Your task to perform on an android device: What's on the menu at Domino's? Image 0: 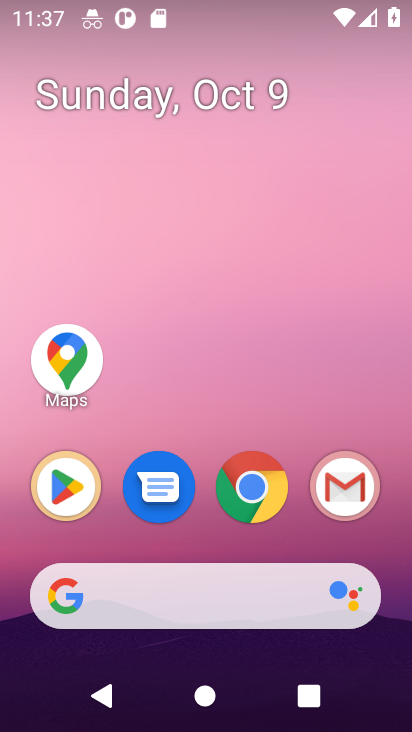
Step 0: click (264, 482)
Your task to perform on an android device: What's on the menu at Domino's? Image 1: 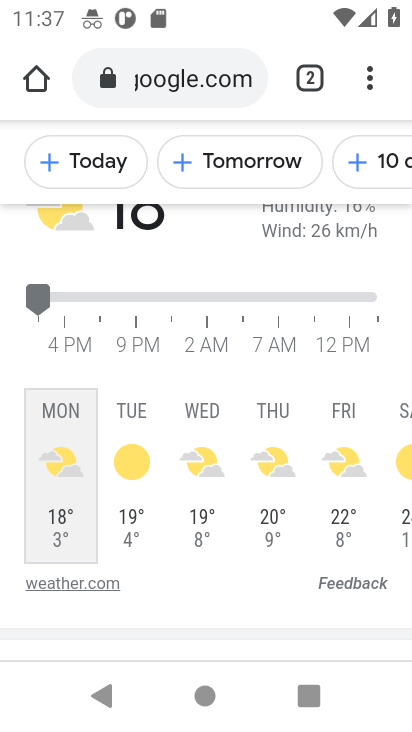
Step 1: click (216, 84)
Your task to perform on an android device: What's on the menu at Domino's? Image 2: 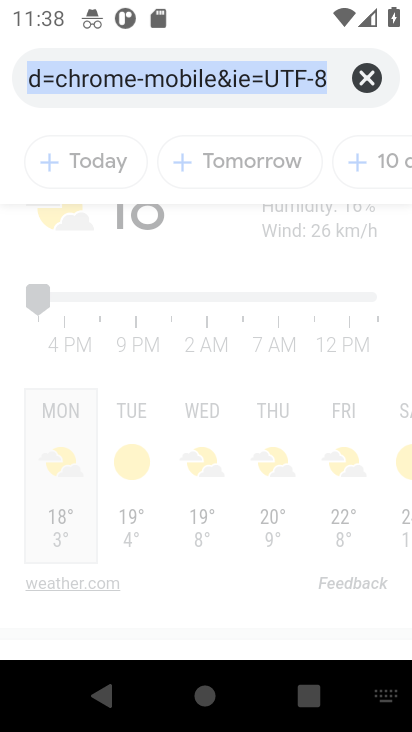
Step 2: type "menu at domino's"
Your task to perform on an android device: What's on the menu at Domino's? Image 3: 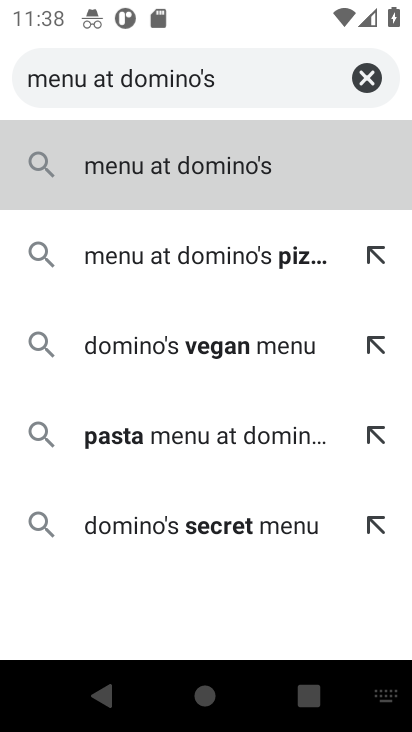
Step 3: press enter
Your task to perform on an android device: What's on the menu at Domino's? Image 4: 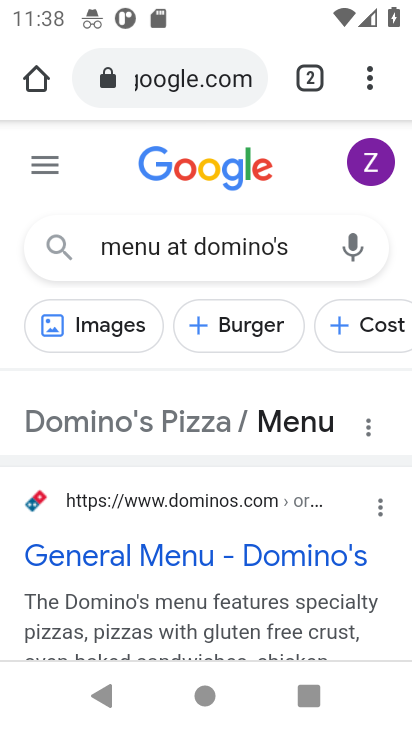
Step 4: click (221, 557)
Your task to perform on an android device: What's on the menu at Domino's? Image 5: 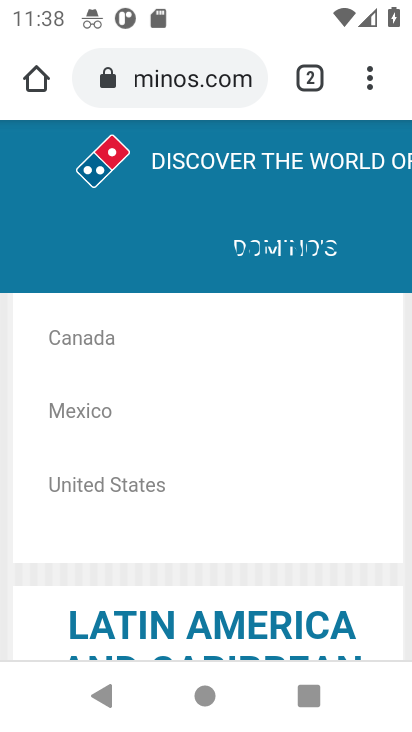
Step 5: drag from (175, 581) to (174, 335)
Your task to perform on an android device: What's on the menu at Domino's? Image 6: 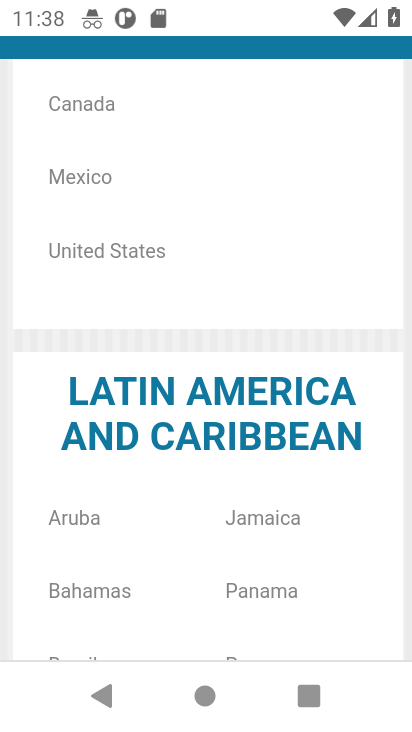
Step 6: drag from (203, 513) to (172, 668)
Your task to perform on an android device: What's on the menu at Domino's? Image 7: 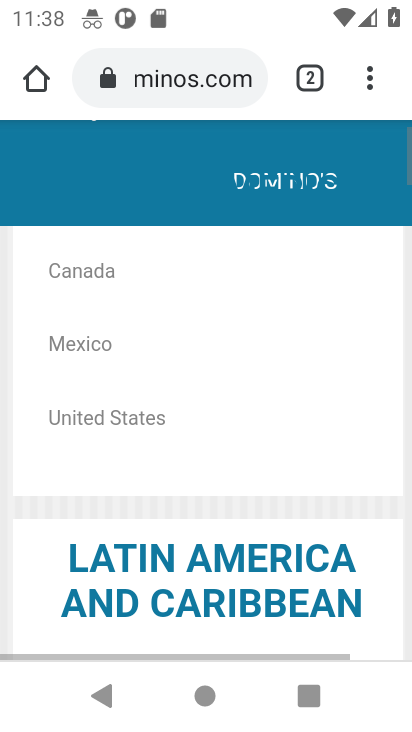
Step 7: drag from (202, 234) to (211, 601)
Your task to perform on an android device: What's on the menu at Domino's? Image 8: 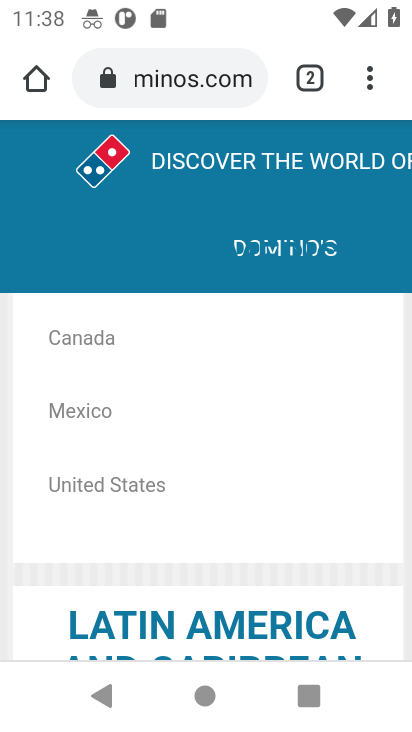
Step 8: drag from (222, 223) to (223, 531)
Your task to perform on an android device: What's on the menu at Domino's? Image 9: 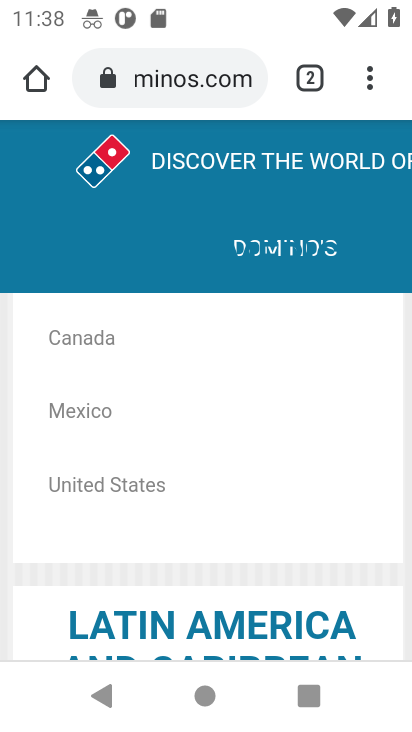
Step 9: press back button
Your task to perform on an android device: What's on the menu at Domino's? Image 10: 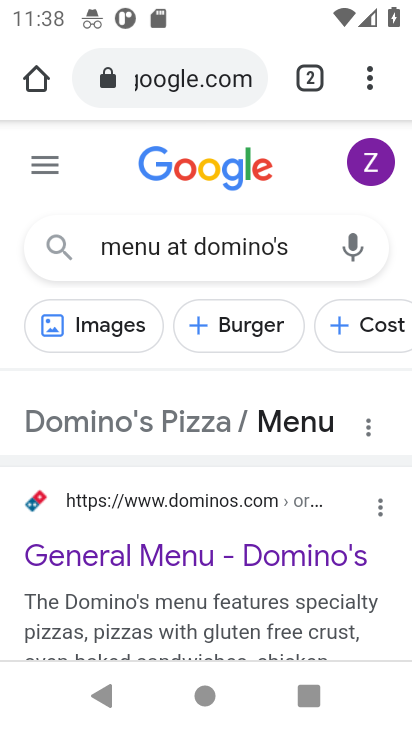
Step 10: drag from (209, 607) to (205, 194)
Your task to perform on an android device: What's on the menu at Domino's? Image 11: 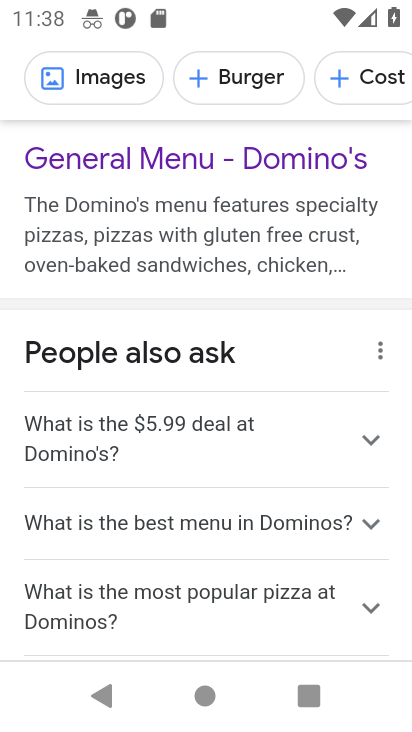
Step 11: drag from (249, 562) to (276, 206)
Your task to perform on an android device: What's on the menu at Domino's? Image 12: 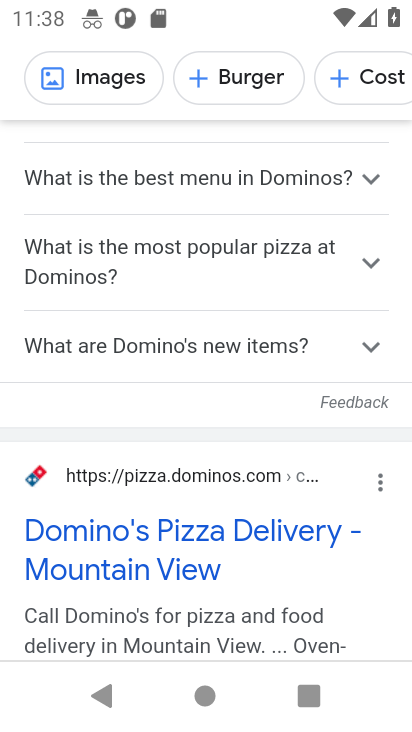
Step 12: drag from (221, 603) to (254, 244)
Your task to perform on an android device: What's on the menu at Domino's? Image 13: 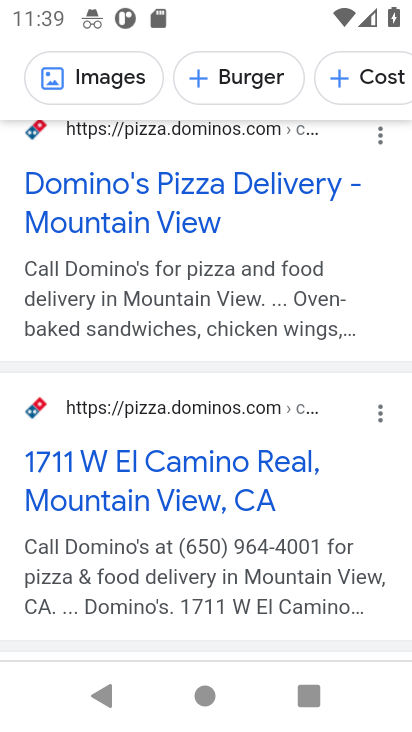
Step 13: drag from (218, 584) to (240, 167)
Your task to perform on an android device: What's on the menu at Domino's? Image 14: 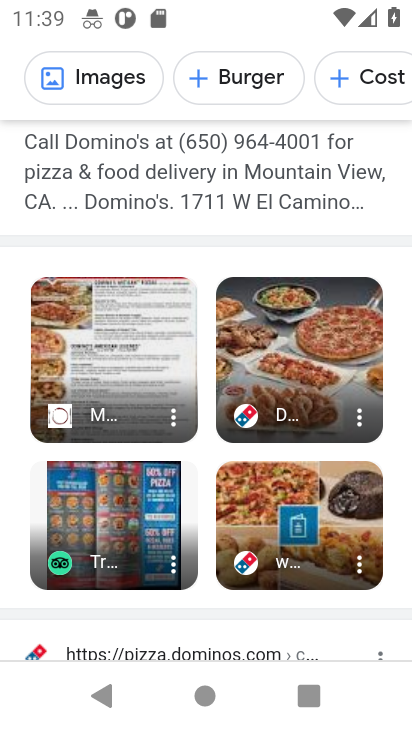
Step 14: drag from (195, 509) to (219, 128)
Your task to perform on an android device: What's on the menu at Domino's? Image 15: 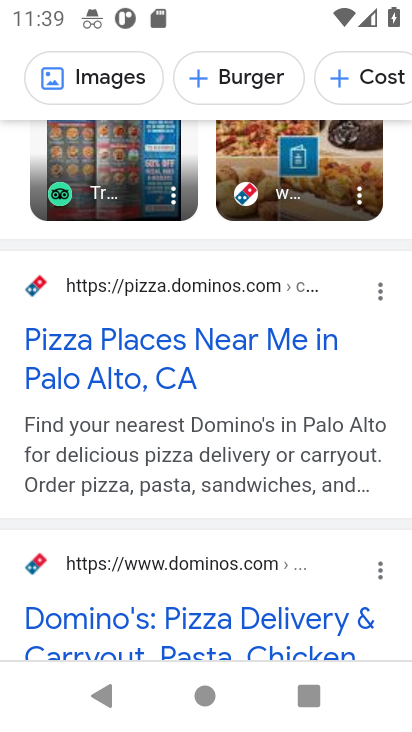
Step 15: drag from (172, 541) to (183, 171)
Your task to perform on an android device: What's on the menu at Domino's? Image 16: 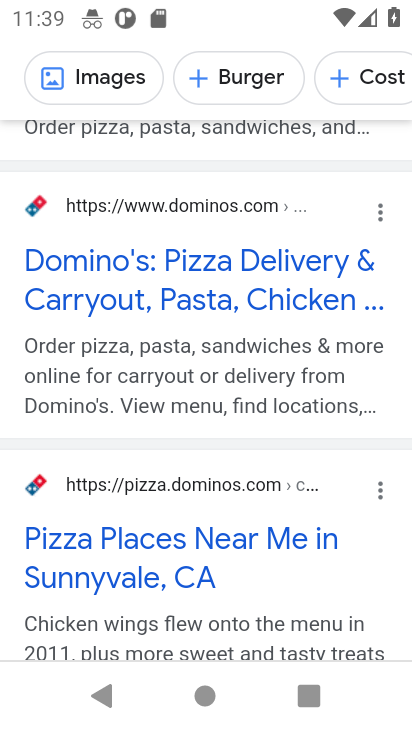
Step 16: drag from (180, 449) to (180, 340)
Your task to perform on an android device: What's on the menu at Domino's? Image 17: 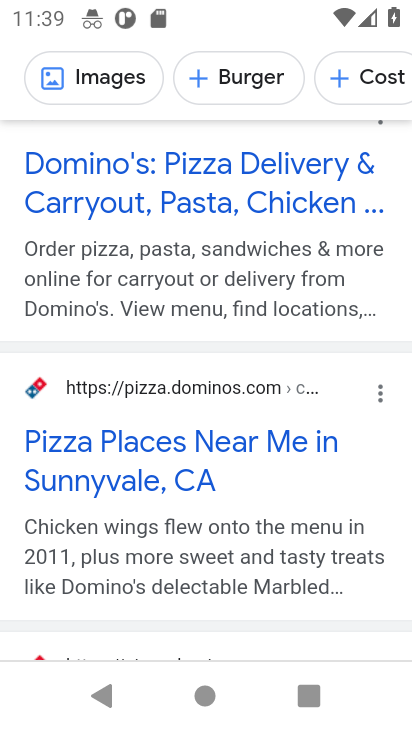
Step 17: drag from (194, 281) to (181, 588)
Your task to perform on an android device: What's on the menu at Domino's? Image 18: 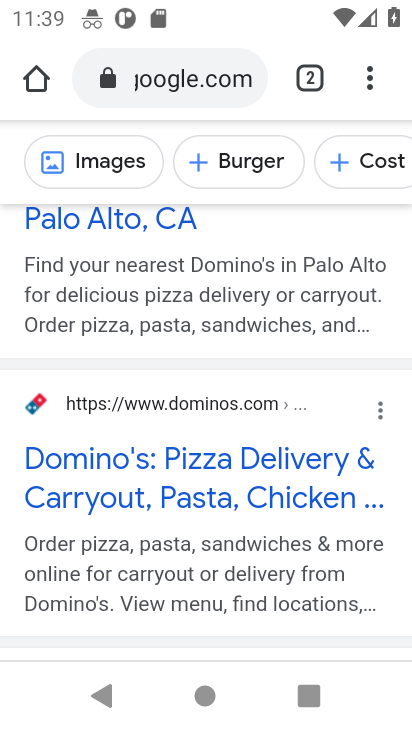
Step 18: drag from (207, 303) to (198, 584)
Your task to perform on an android device: What's on the menu at Domino's? Image 19: 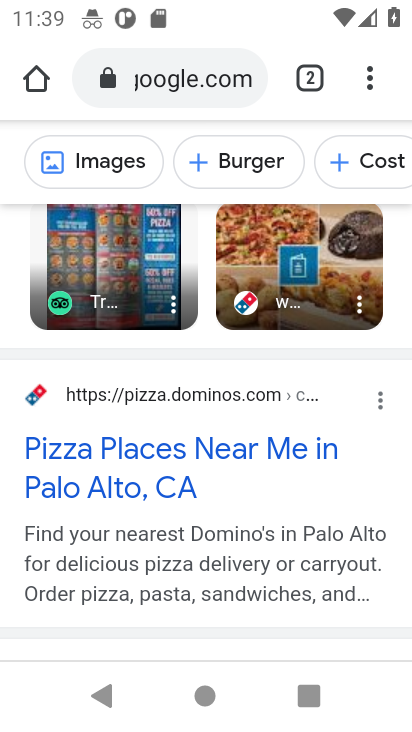
Step 19: drag from (198, 327) to (206, 645)
Your task to perform on an android device: What's on the menu at Domino's? Image 20: 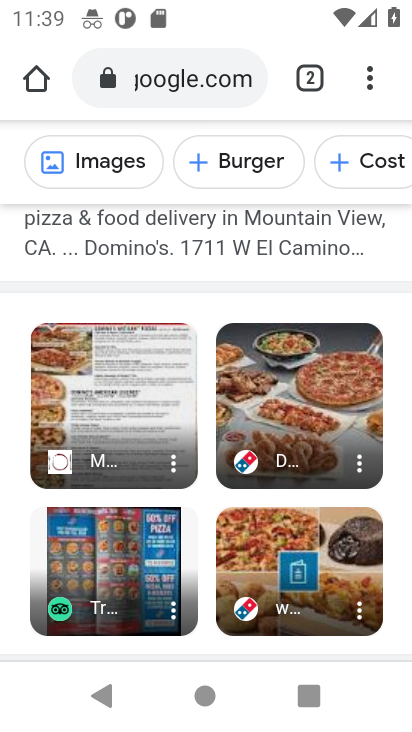
Step 20: drag from (217, 268) to (188, 647)
Your task to perform on an android device: What's on the menu at Domino's? Image 21: 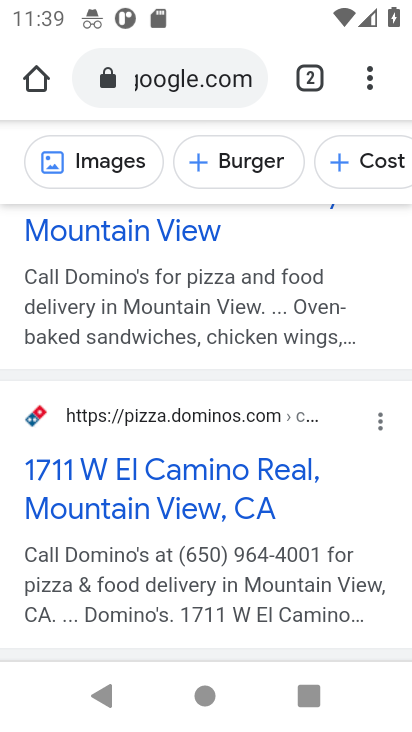
Step 21: drag from (212, 310) to (212, 642)
Your task to perform on an android device: What's on the menu at Domino's? Image 22: 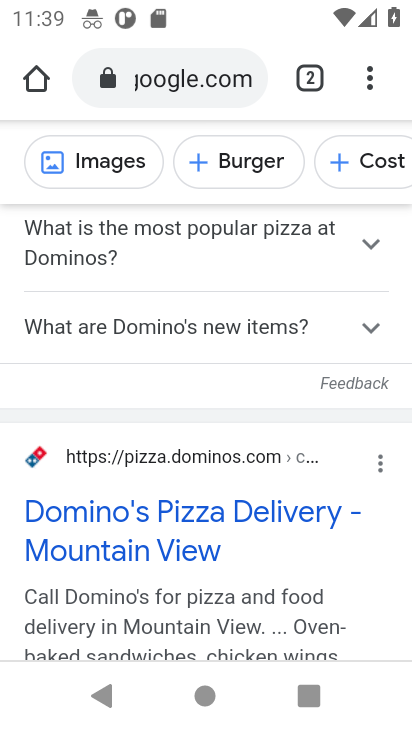
Step 22: drag from (261, 378) to (261, 625)
Your task to perform on an android device: What's on the menu at Domino's? Image 23: 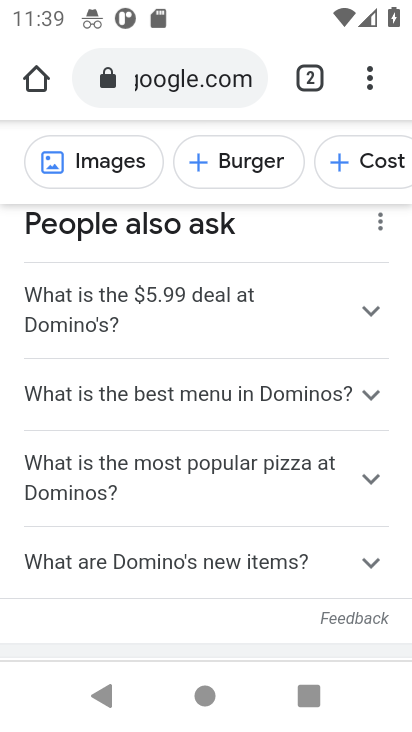
Step 23: drag from (243, 345) to (229, 606)
Your task to perform on an android device: What's on the menu at Domino's? Image 24: 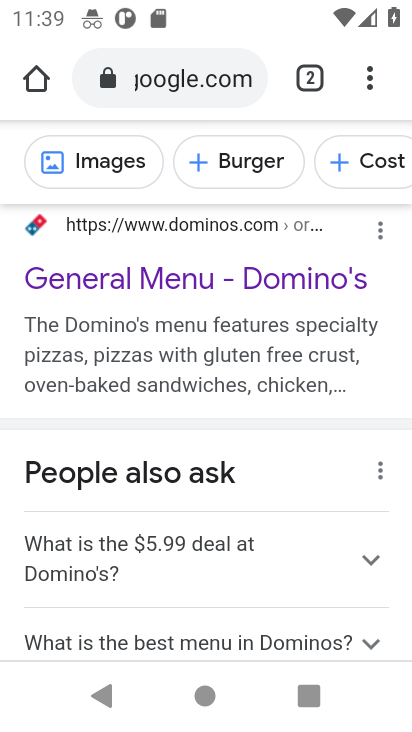
Step 24: drag from (225, 353) to (226, 585)
Your task to perform on an android device: What's on the menu at Domino's? Image 25: 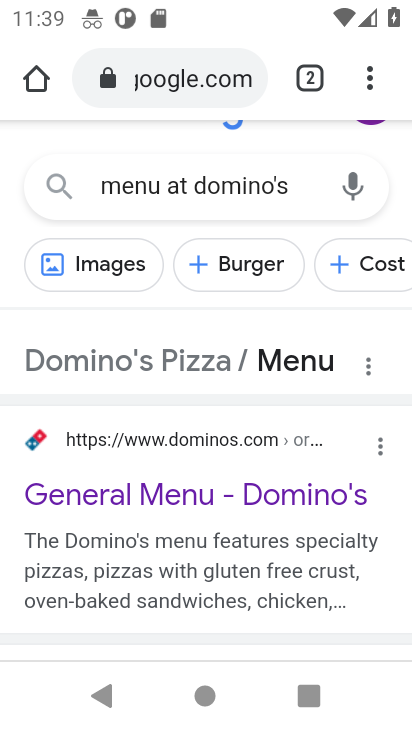
Step 25: click (223, 494)
Your task to perform on an android device: What's on the menu at Domino's? Image 26: 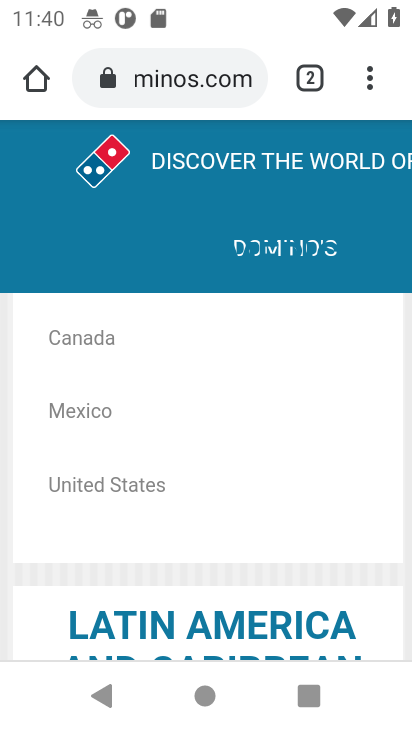
Step 26: drag from (182, 602) to (160, 288)
Your task to perform on an android device: What's on the menu at Domino's? Image 27: 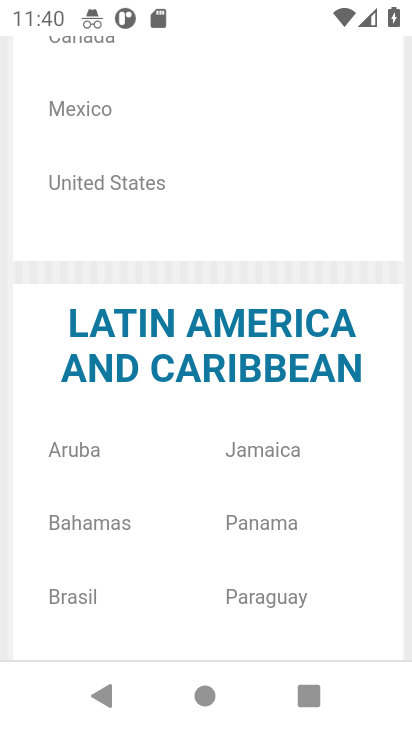
Step 27: drag from (182, 550) to (176, 167)
Your task to perform on an android device: What's on the menu at Domino's? Image 28: 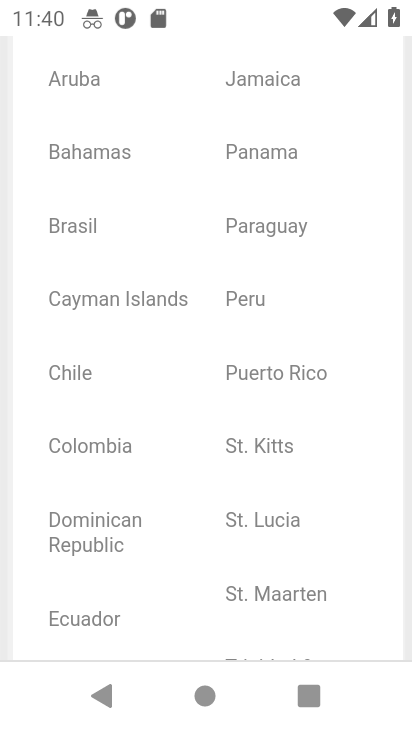
Step 28: drag from (179, 514) to (179, 197)
Your task to perform on an android device: What's on the menu at Domino's? Image 29: 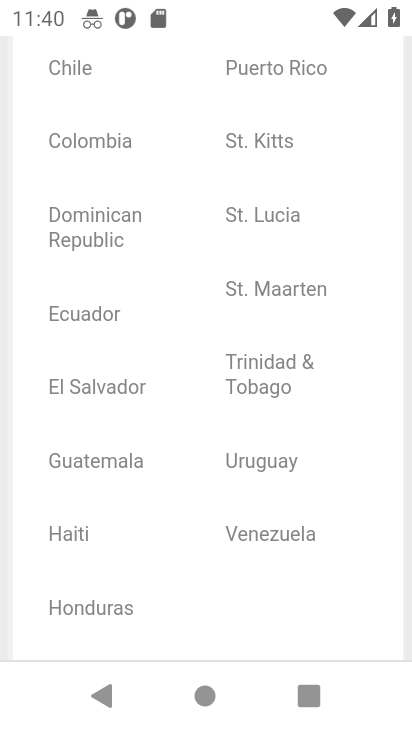
Step 29: drag from (222, 579) to (194, 147)
Your task to perform on an android device: What's on the menu at Domino's? Image 30: 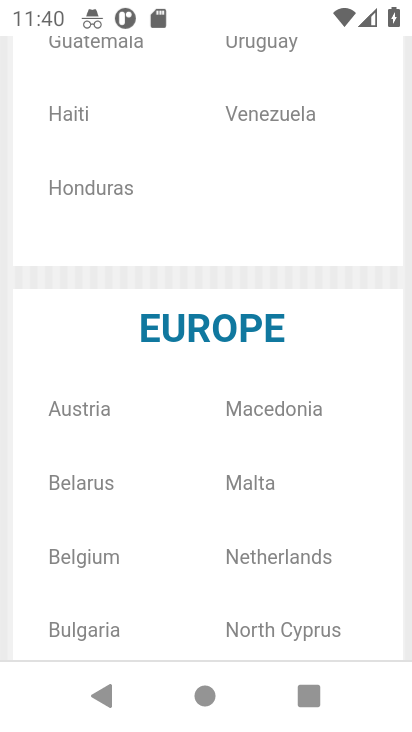
Step 30: drag from (236, 233) to (188, 691)
Your task to perform on an android device: What's on the menu at Domino's? Image 31: 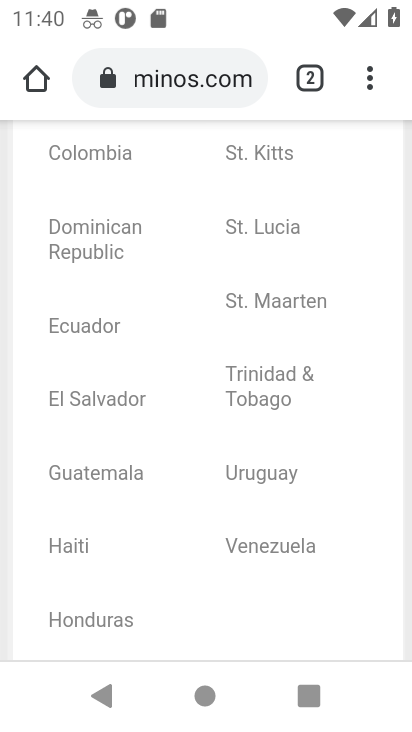
Step 31: drag from (198, 233) to (214, 604)
Your task to perform on an android device: What's on the menu at Domino's? Image 32: 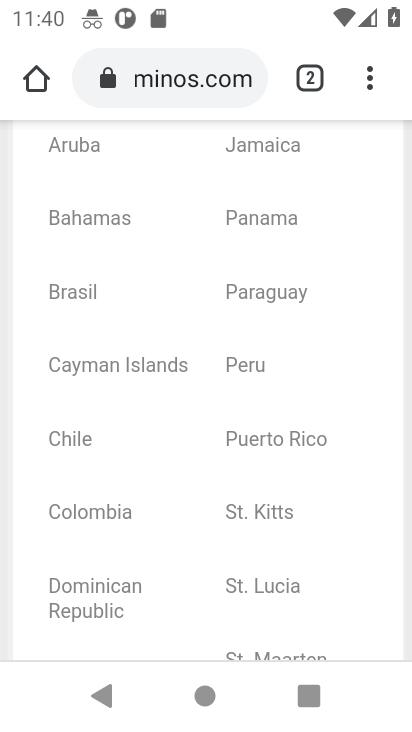
Step 32: drag from (246, 303) to (246, 618)
Your task to perform on an android device: What's on the menu at Domino's? Image 33: 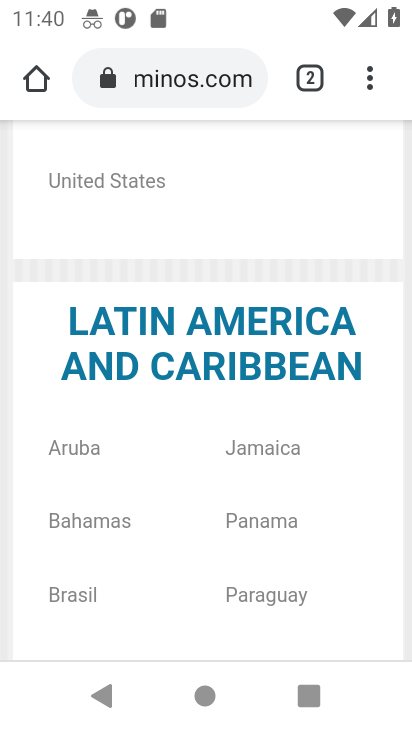
Step 33: drag from (218, 295) to (206, 552)
Your task to perform on an android device: What's on the menu at Domino's? Image 34: 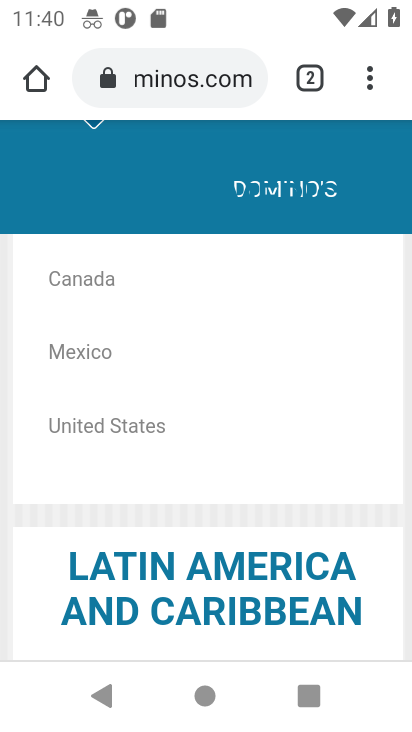
Step 34: drag from (256, 313) to (258, 498)
Your task to perform on an android device: What's on the menu at Domino's? Image 35: 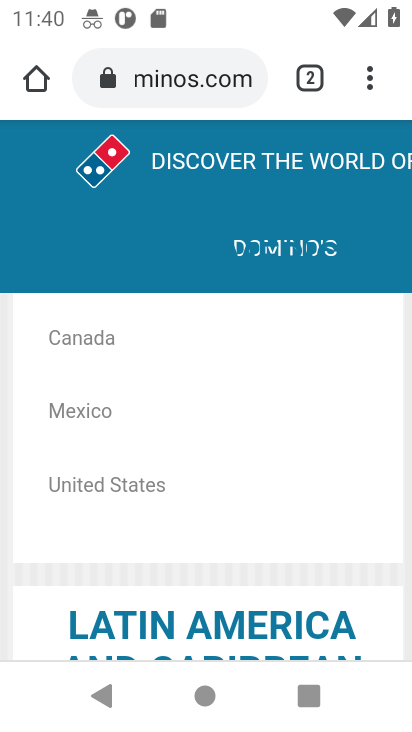
Step 35: click (129, 489)
Your task to perform on an android device: What's on the menu at Domino's? Image 36: 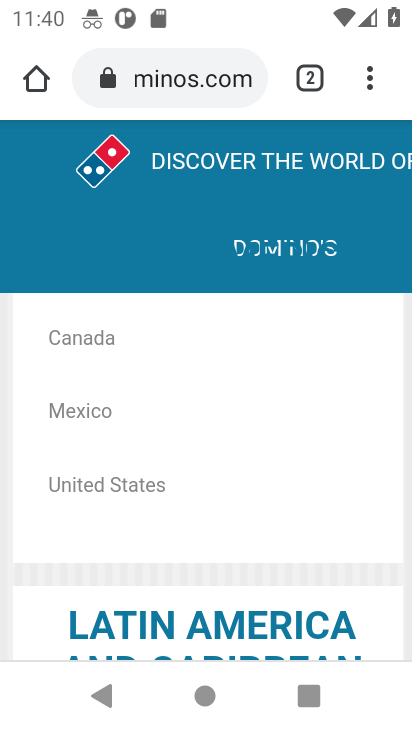
Step 36: task complete